Your task to perform on an android device: change alarm snooze length Image 0: 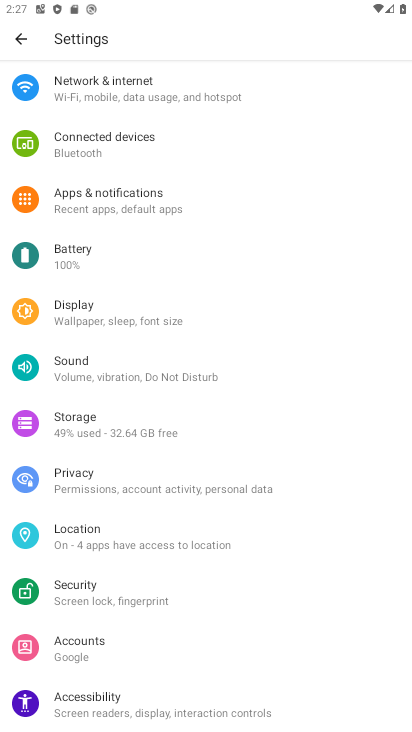
Step 0: press home button
Your task to perform on an android device: change alarm snooze length Image 1: 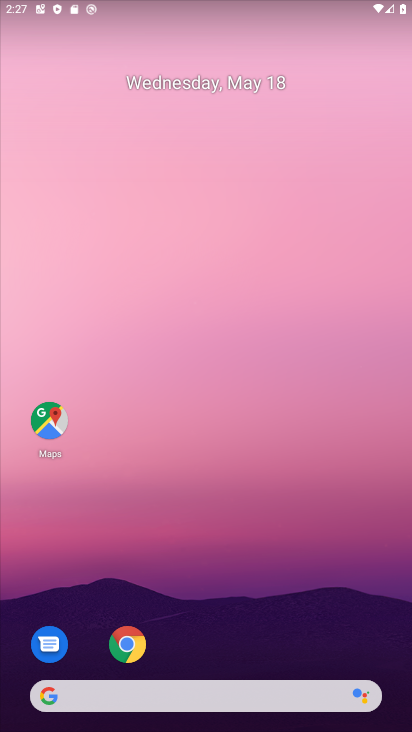
Step 1: drag from (193, 729) to (186, 15)
Your task to perform on an android device: change alarm snooze length Image 2: 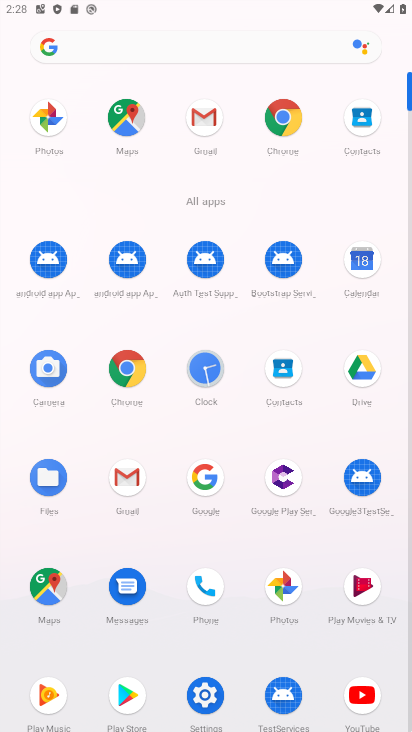
Step 2: click (224, 359)
Your task to perform on an android device: change alarm snooze length Image 3: 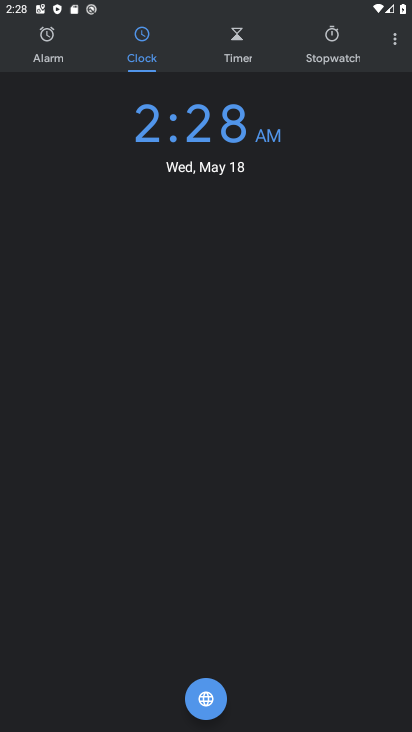
Step 3: click (395, 40)
Your task to perform on an android device: change alarm snooze length Image 4: 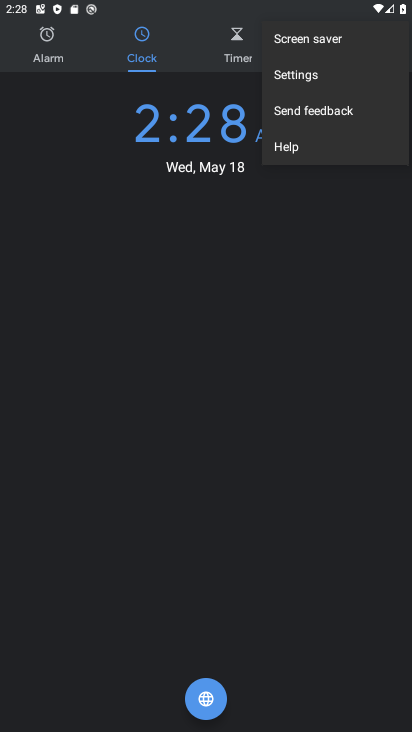
Step 4: click (338, 81)
Your task to perform on an android device: change alarm snooze length Image 5: 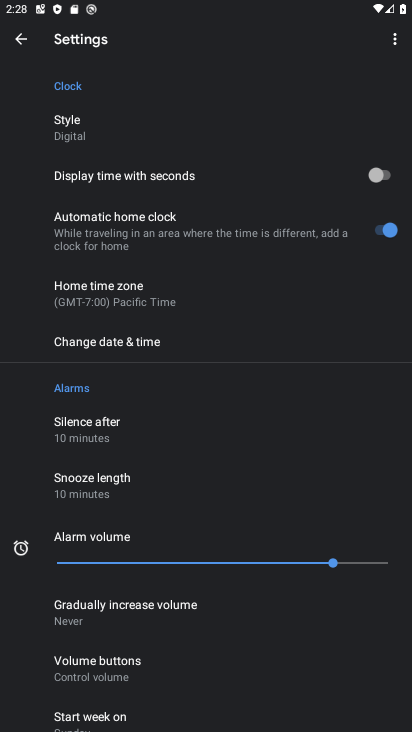
Step 5: click (106, 485)
Your task to perform on an android device: change alarm snooze length Image 6: 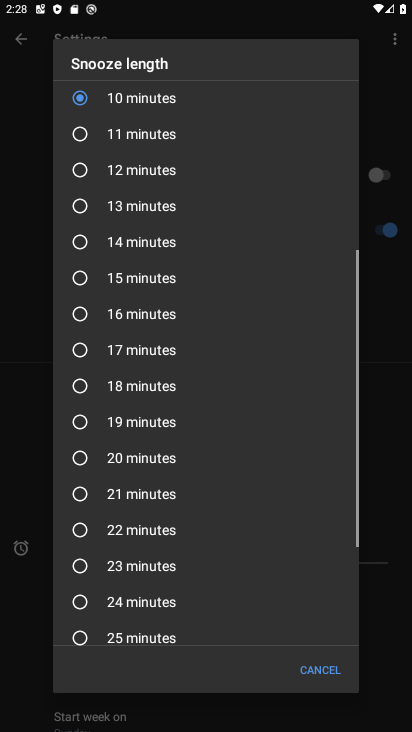
Step 6: click (154, 501)
Your task to perform on an android device: change alarm snooze length Image 7: 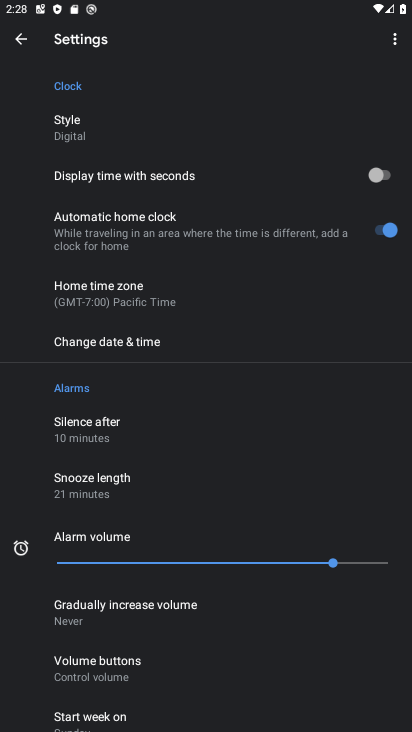
Step 7: task complete